Your task to perform on an android device: What's the weather going to be tomorrow? Image 0: 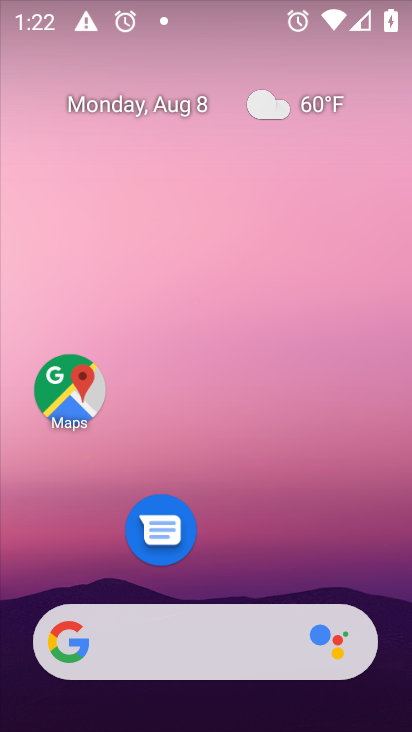
Step 0: drag from (242, 450) to (253, 151)
Your task to perform on an android device: What's the weather going to be tomorrow? Image 1: 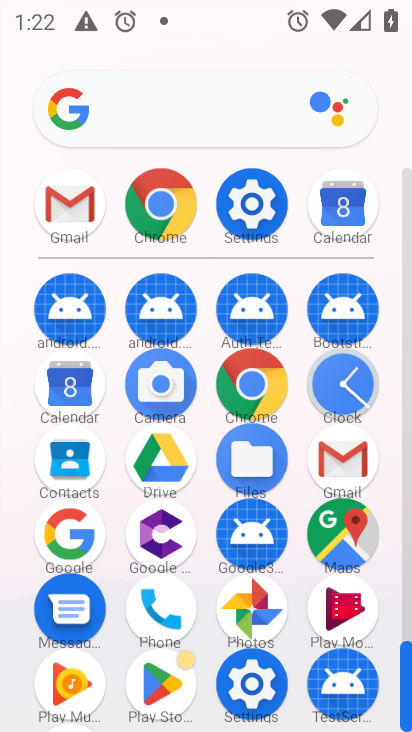
Step 1: click (78, 533)
Your task to perform on an android device: What's the weather going to be tomorrow? Image 2: 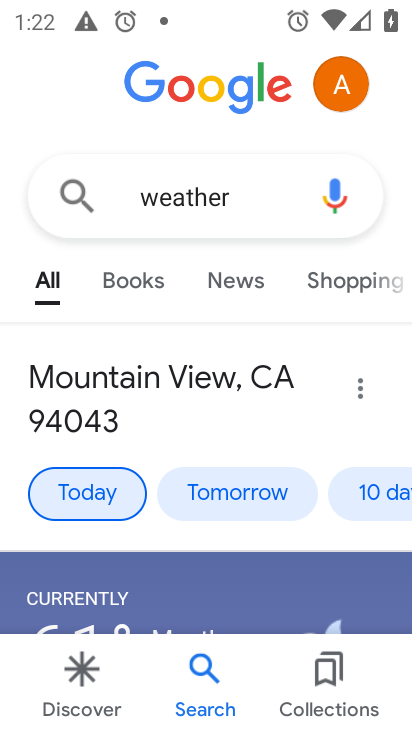
Step 2: click (212, 498)
Your task to perform on an android device: What's the weather going to be tomorrow? Image 3: 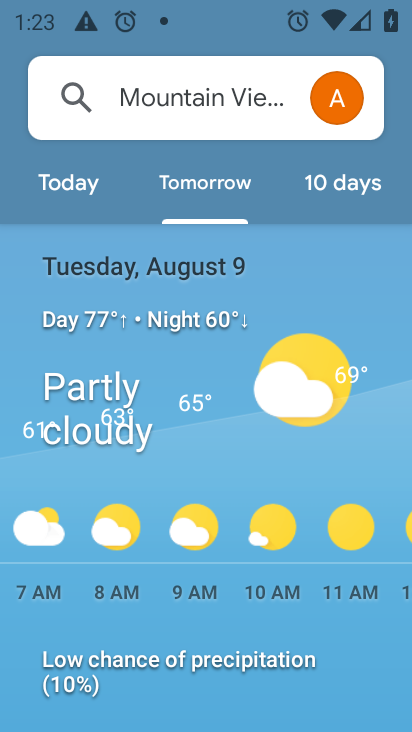
Step 3: task complete